Your task to perform on an android device: Do I have any events today? Image 0: 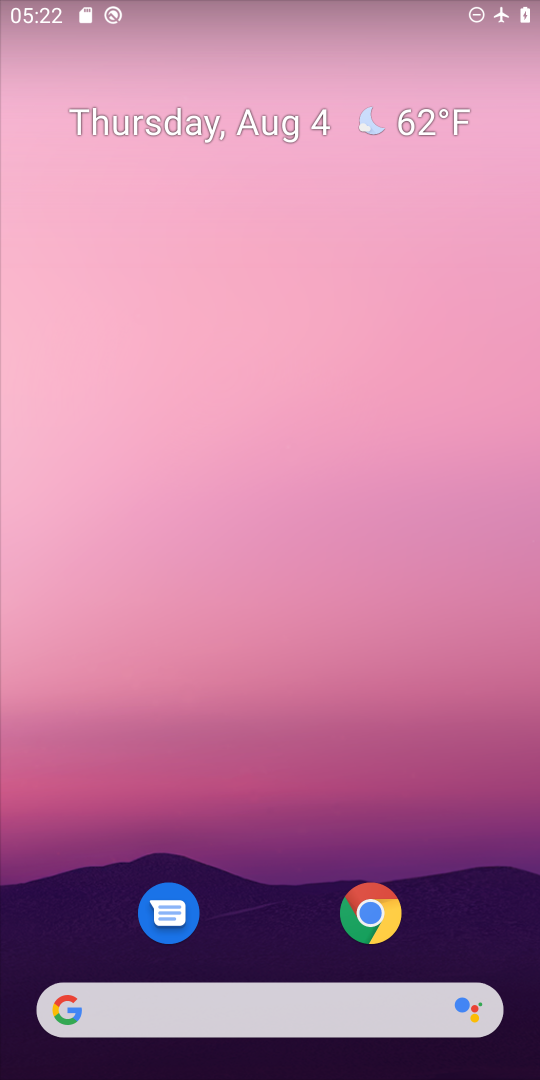
Step 0: drag from (369, 926) to (415, 107)
Your task to perform on an android device: Do I have any events today? Image 1: 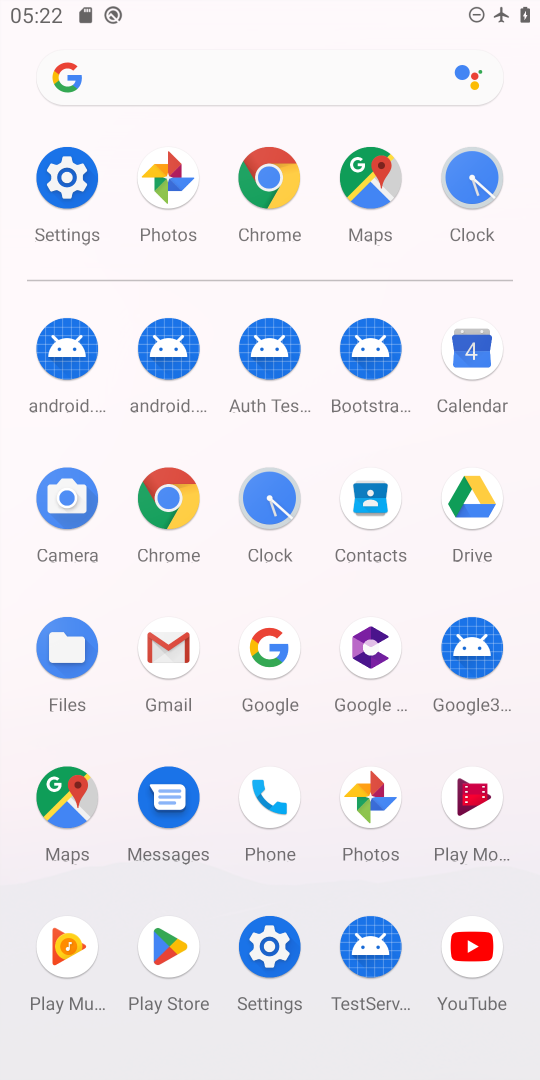
Step 1: click (486, 358)
Your task to perform on an android device: Do I have any events today? Image 2: 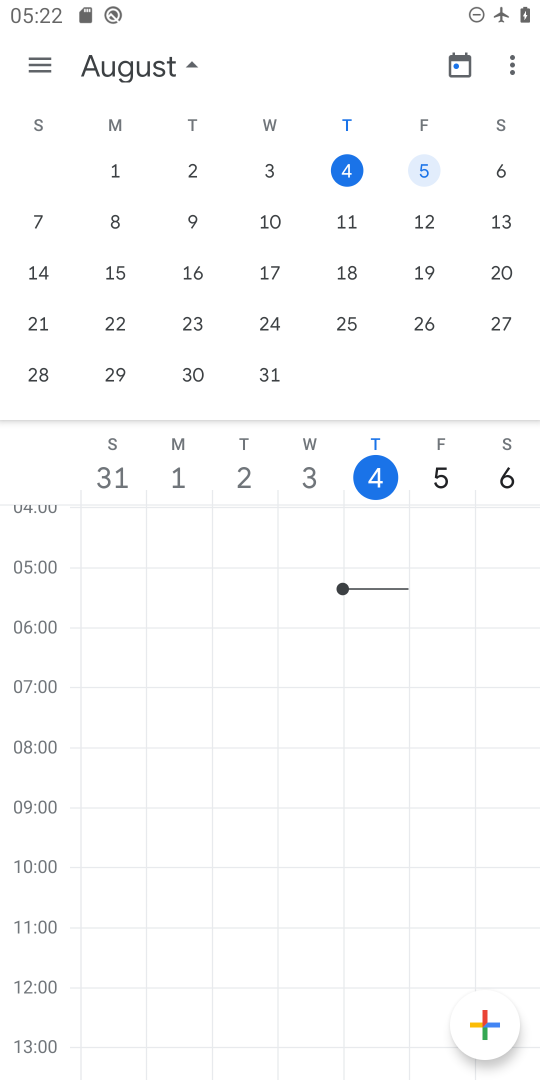
Step 2: click (341, 165)
Your task to perform on an android device: Do I have any events today? Image 3: 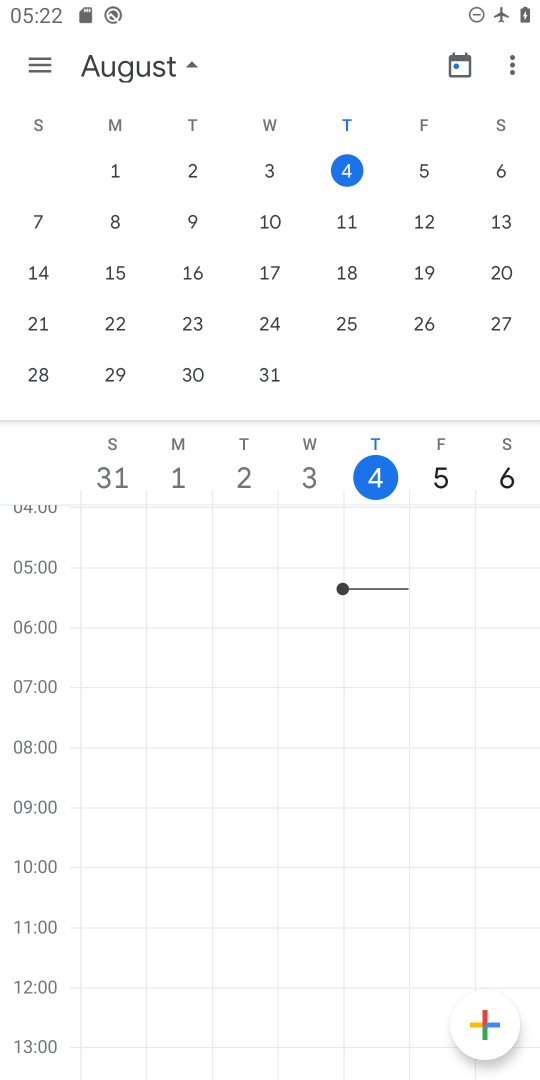
Step 3: task complete